Your task to perform on an android device: turn on improve location accuracy Image 0: 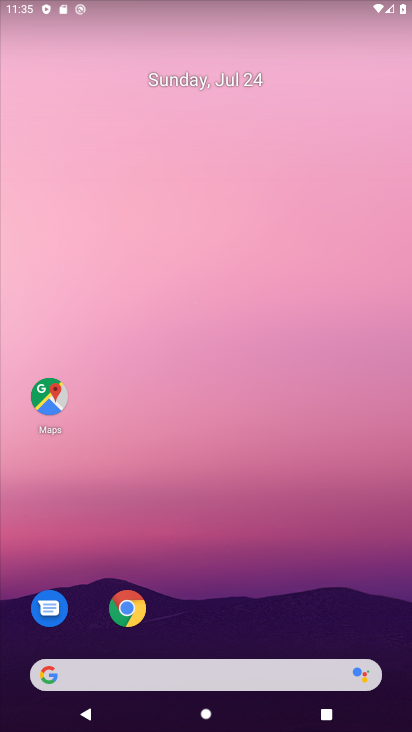
Step 0: drag from (201, 657) to (280, 160)
Your task to perform on an android device: turn on improve location accuracy Image 1: 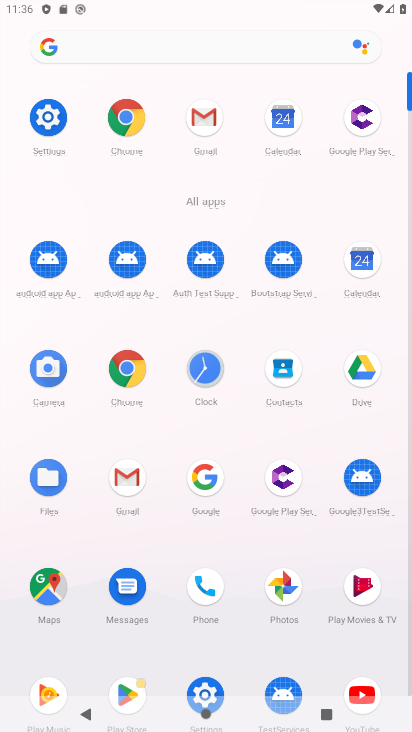
Step 1: click (43, 126)
Your task to perform on an android device: turn on improve location accuracy Image 2: 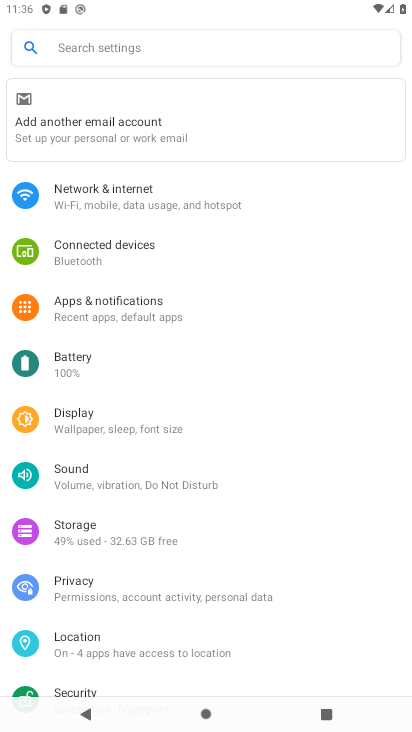
Step 2: click (109, 641)
Your task to perform on an android device: turn on improve location accuracy Image 3: 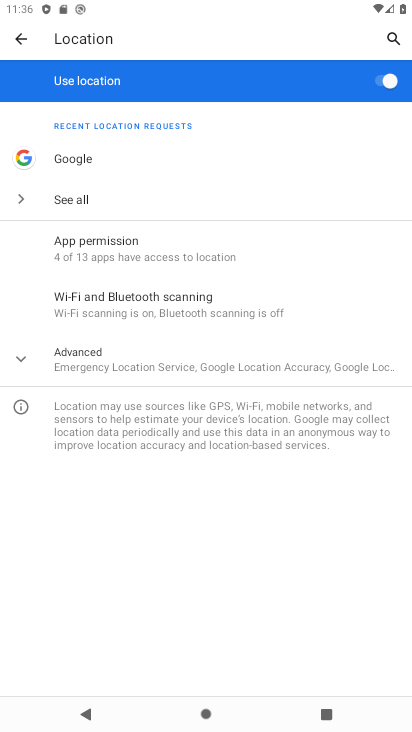
Step 3: click (186, 370)
Your task to perform on an android device: turn on improve location accuracy Image 4: 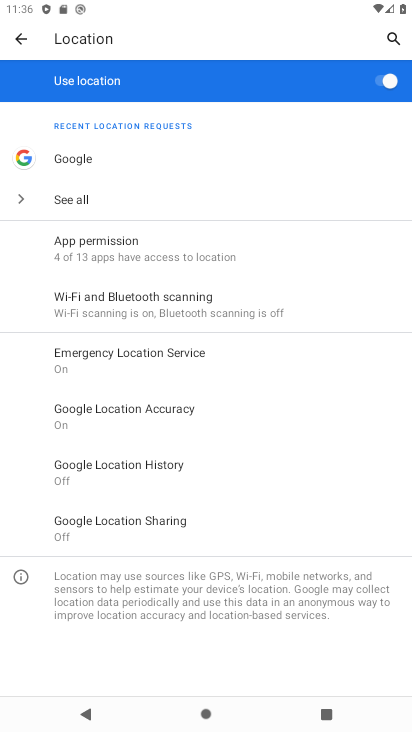
Step 4: click (152, 417)
Your task to perform on an android device: turn on improve location accuracy Image 5: 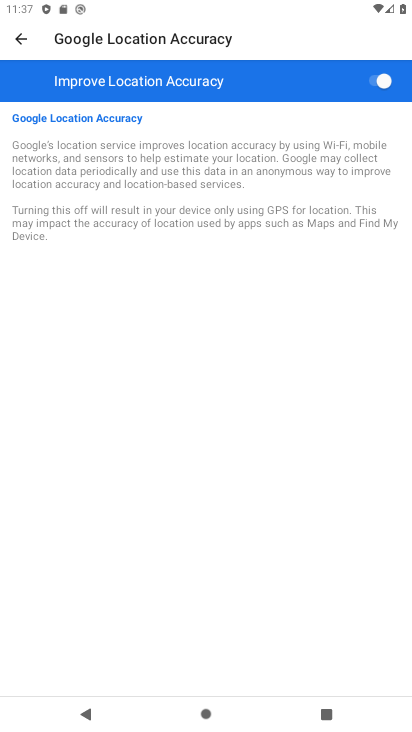
Step 5: task complete